Your task to perform on an android device: Open battery settings Image 0: 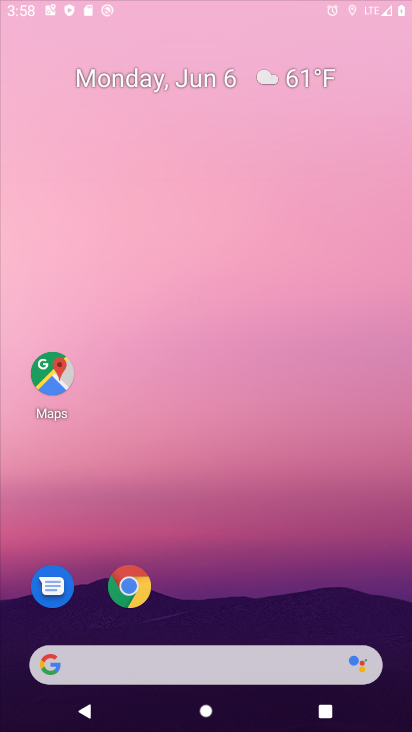
Step 0: drag from (215, 613) to (156, 172)
Your task to perform on an android device: Open battery settings Image 1: 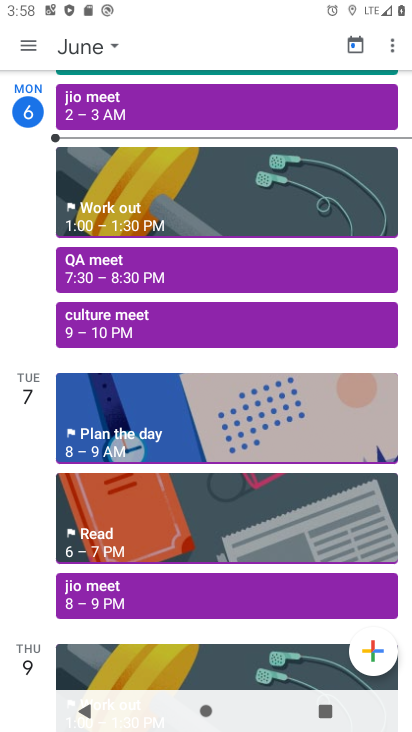
Step 1: press home button
Your task to perform on an android device: Open battery settings Image 2: 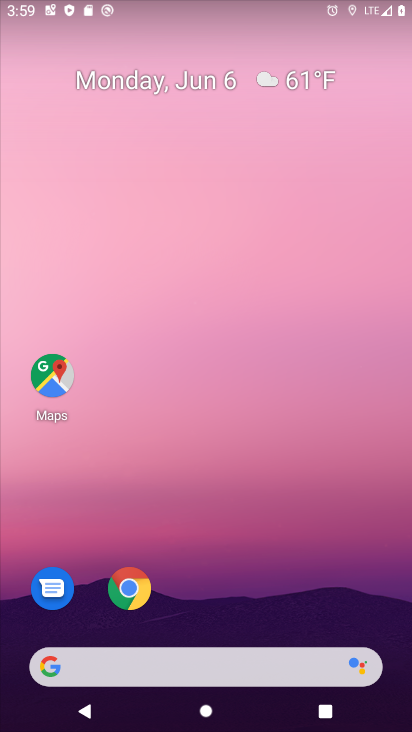
Step 2: drag from (233, 616) to (167, 223)
Your task to perform on an android device: Open battery settings Image 3: 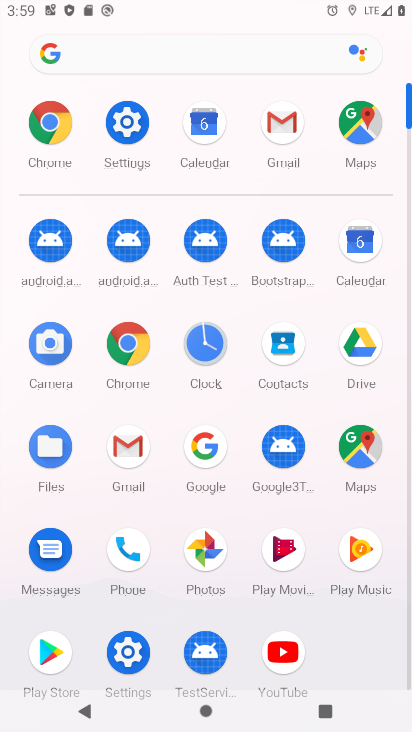
Step 3: click (140, 136)
Your task to perform on an android device: Open battery settings Image 4: 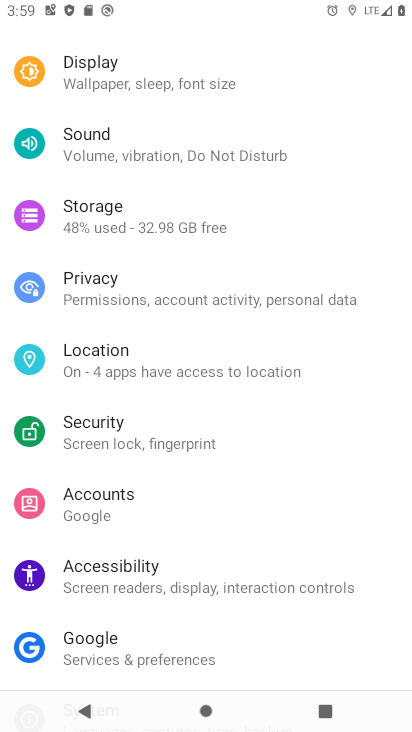
Step 4: drag from (176, 132) to (193, 603)
Your task to perform on an android device: Open battery settings Image 5: 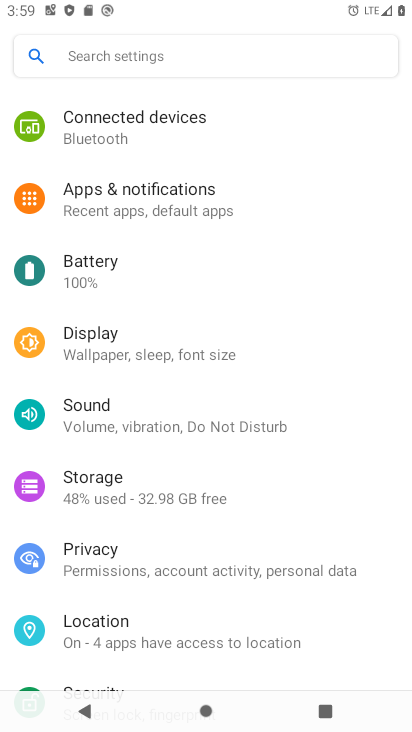
Step 5: click (175, 263)
Your task to perform on an android device: Open battery settings Image 6: 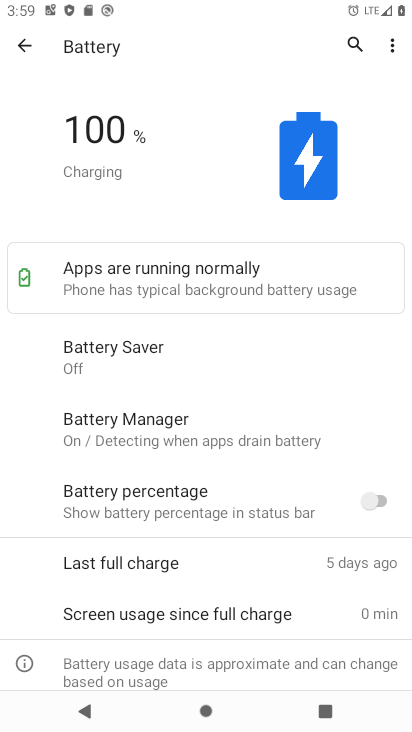
Step 6: task complete